Your task to perform on an android device: open a bookmark in the chrome app Image 0: 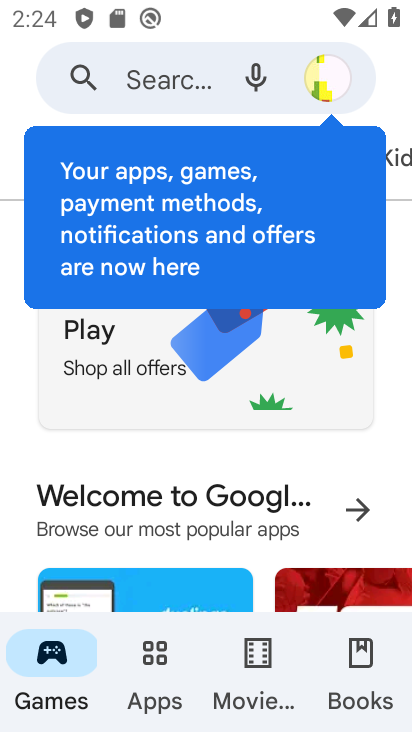
Step 0: press home button
Your task to perform on an android device: open a bookmark in the chrome app Image 1: 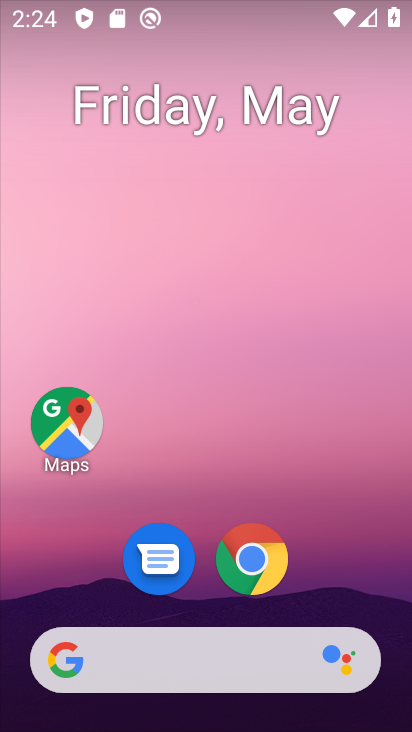
Step 1: click (265, 560)
Your task to perform on an android device: open a bookmark in the chrome app Image 2: 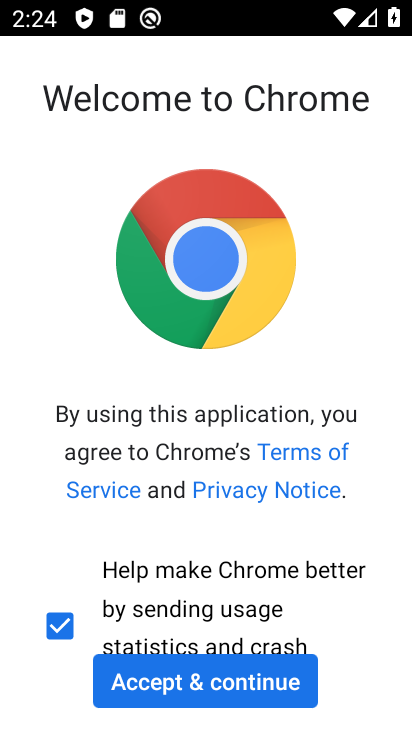
Step 2: click (267, 698)
Your task to perform on an android device: open a bookmark in the chrome app Image 3: 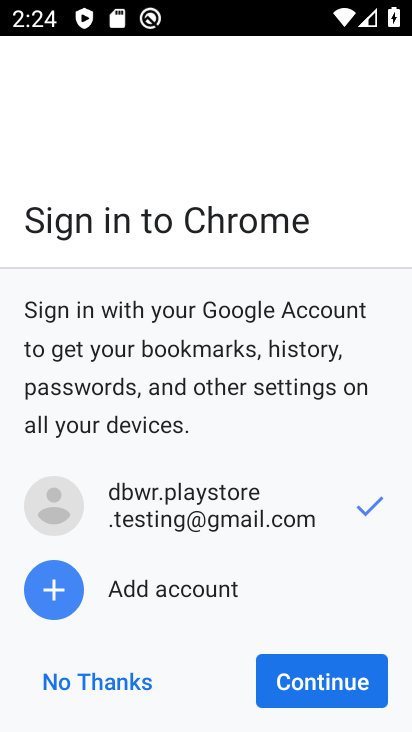
Step 3: click (317, 678)
Your task to perform on an android device: open a bookmark in the chrome app Image 4: 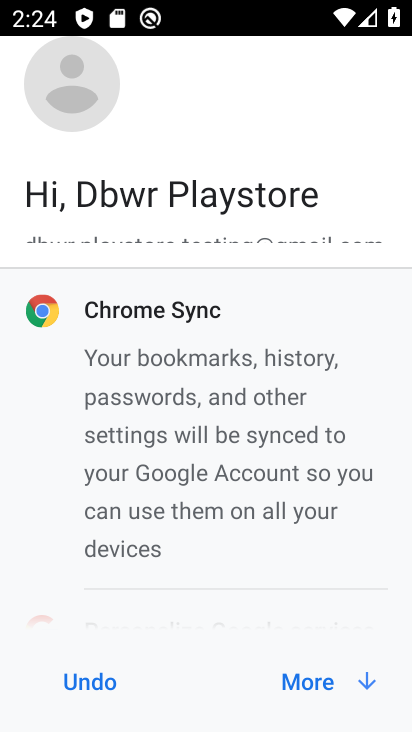
Step 4: click (336, 684)
Your task to perform on an android device: open a bookmark in the chrome app Image 5: 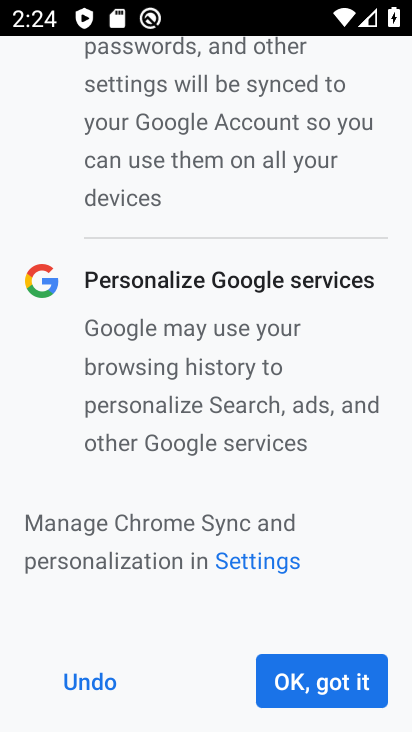
Step 5: click (326, 682)
Your task to perform on an android device: open a bookmark in the chrome app Image 6: 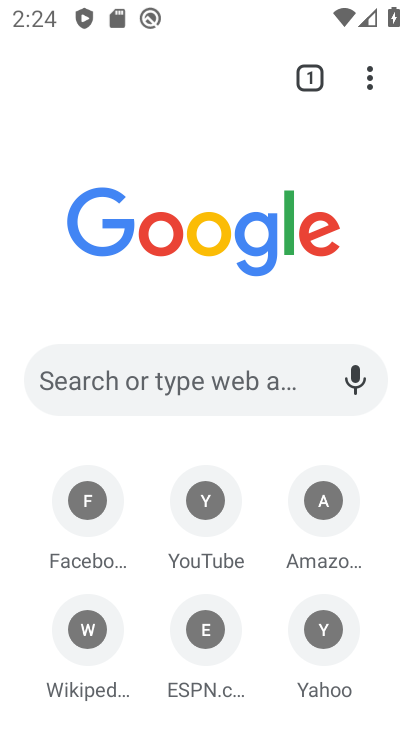
Step 6: click (373, 75)
Your task to perform on an android device: open a bookmark in the chrome app Image 7: 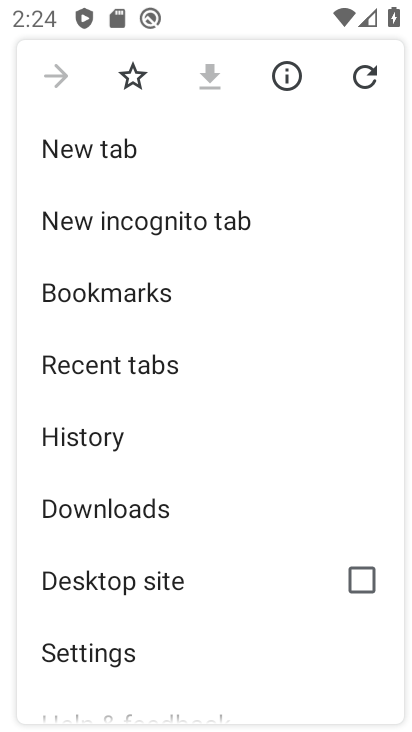
Step 7: click (172, 292)
Your task to perform on an android device: open a bookmark in the chrome app Image 8: 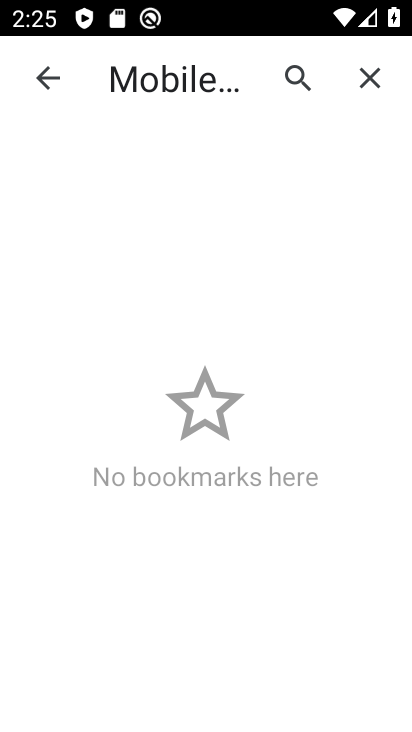
Step 8: task complete